Your task to perform on an android device: read, delete, or share a saved page in the chrome app Image 0: 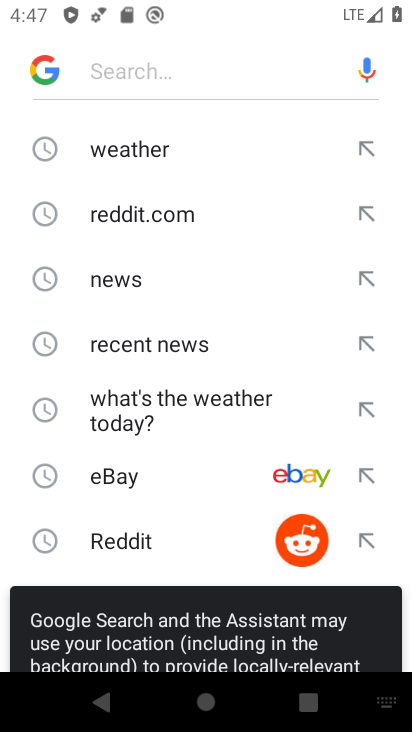
Step 0: press home button
Your task to perform on an android device: read, delete, or share a saved page in the chrome app Image 1: 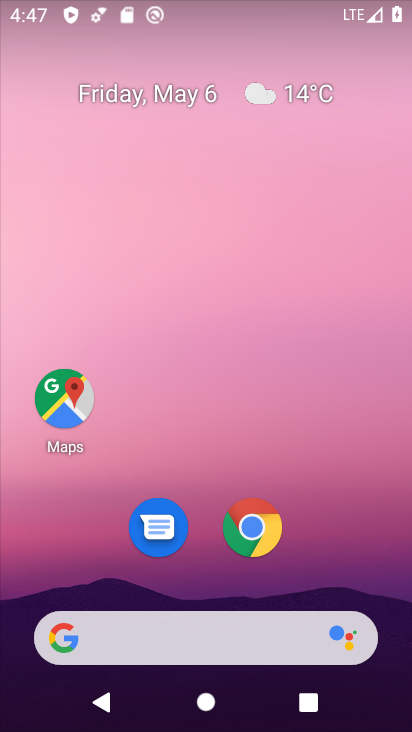
Step 1: click (253, 531)
Your task to perform on an android device: read, delete, or share a saved page in the chrome app Image 2: 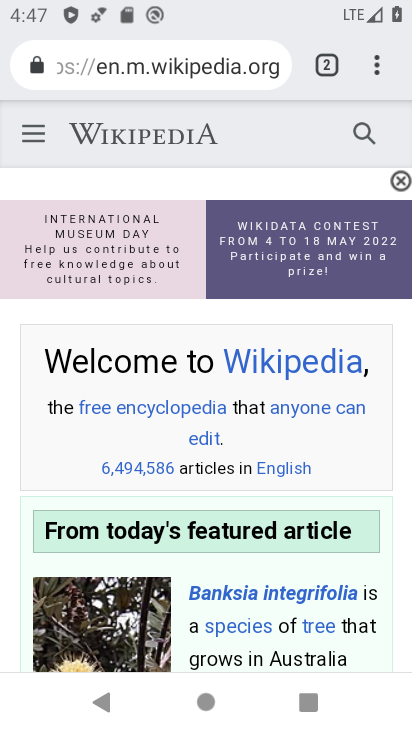
Step 2: drag from (377, 63) to (184, 423)
Your task to perform on an android device: read, delete, or share a saved page in the chrome app Image 3: 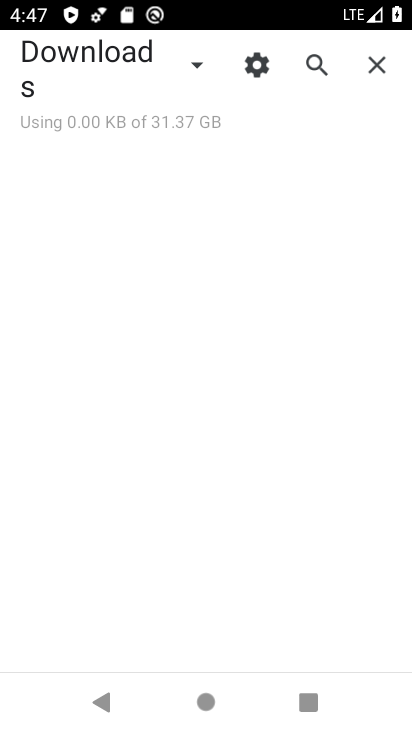
Step 3: click (193, 61)
Your task to perform on an android device: read, delete, or share a saved page in the chrome app Image 4: 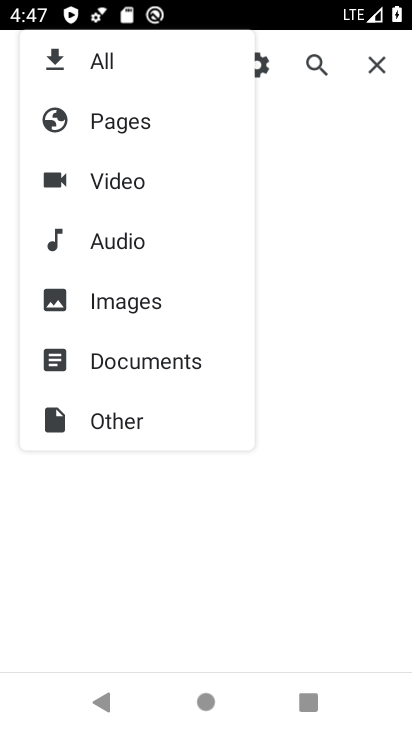
Step 4: click (135, 117)
Your task to perform on an android device: read, delete, or share a saved page in the chrome app Image 5: 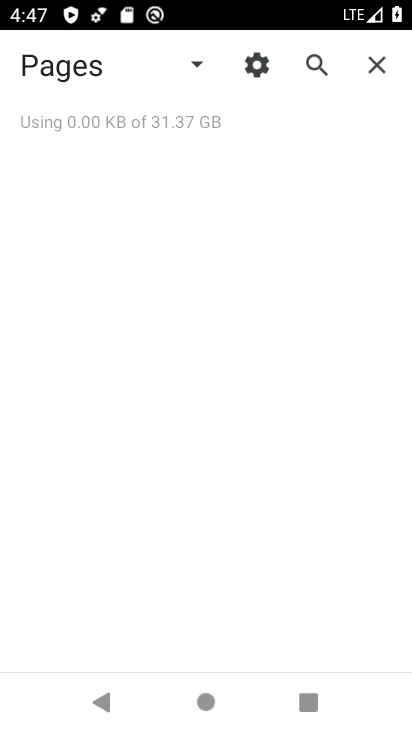
Step 5: task complete